Your task to perform on an android device: Go to Amazon Image 0: 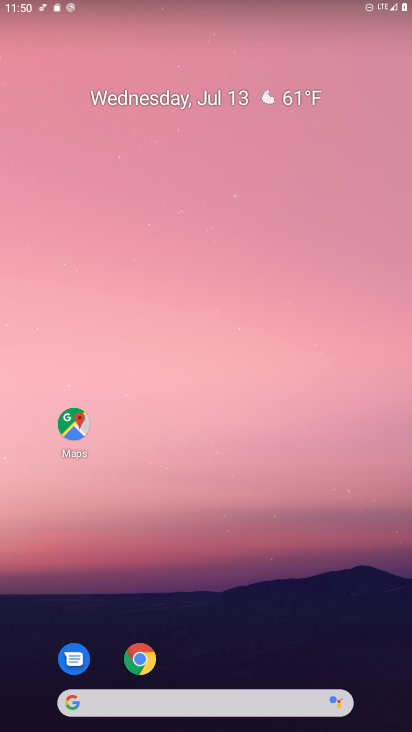
Step 0: click (140, 661)
Your task to perform on an android device: Go to Amazon Image 1: 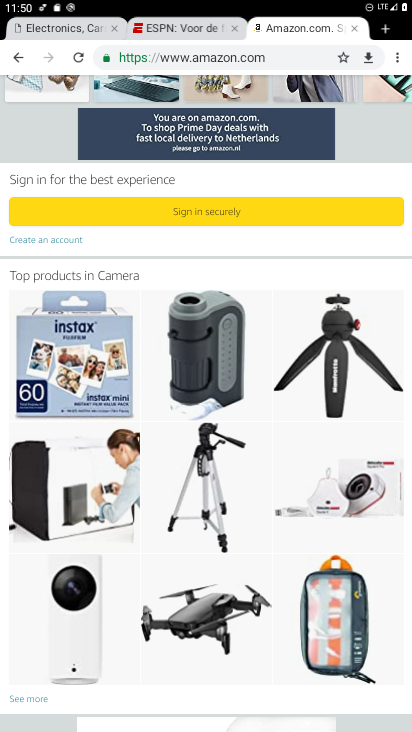
Step 1: task complete